Your task to perform on an android device: turn off location history Image 0: 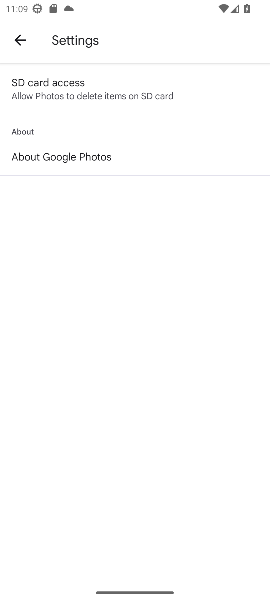
Step 0: press home button
Your task to perform on an android device: turn off location history Image 1: 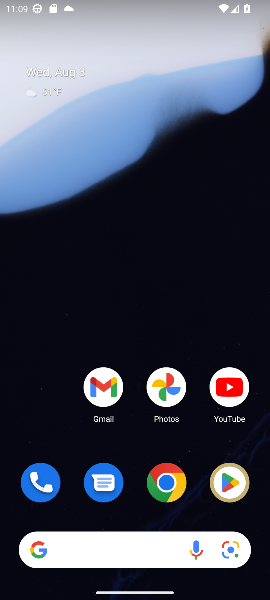
Step 1: drag from (130, 517) to (130, 170)
Your task to perform on an android device: turn off location history Image 2: 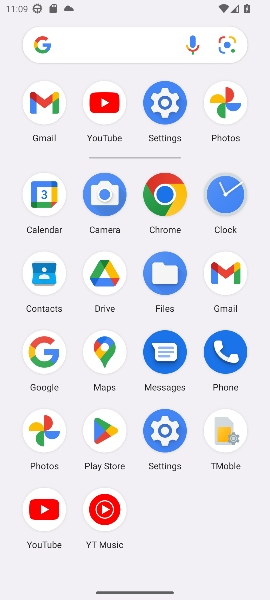
Step 2: click (164, 427)
Your task to perform on an android device: turn off location history Image 3: 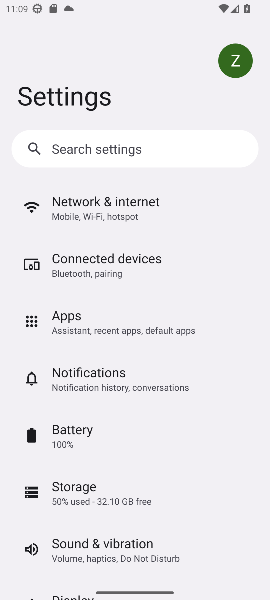
Step 3: task complete